Your task to perform on an android device: turn on javascript in the chrome app Image 0: 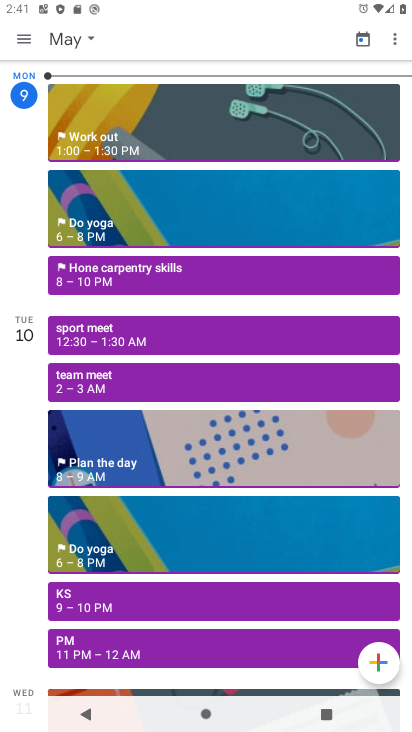
Step 0: press home button
Your task to perform on an android device: turn on javascript in the chrome app Image 1: 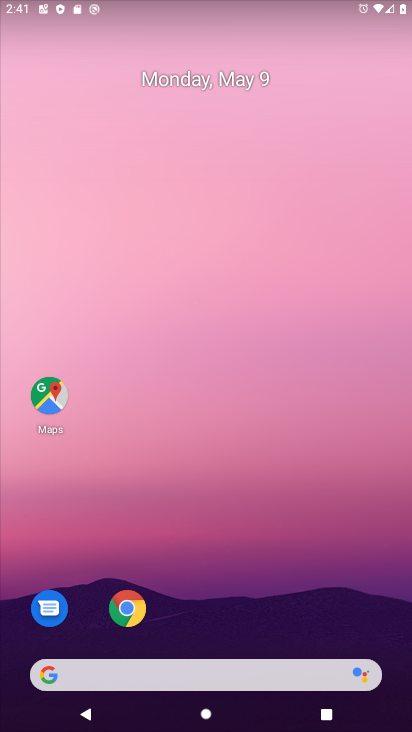
Step 1: click (135, 621)
Your task to perform on an android device: turn on javascript in the chrome app Image 2: 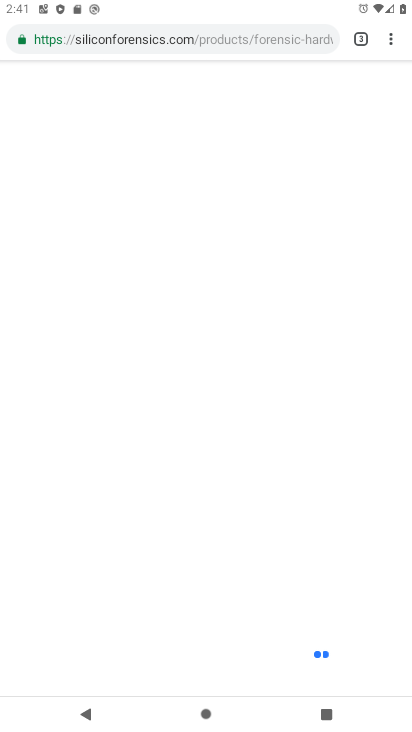
Step 2: click (378, 42)
Your task to perform on an android device: turn on javascript in the chrome app Image 3: 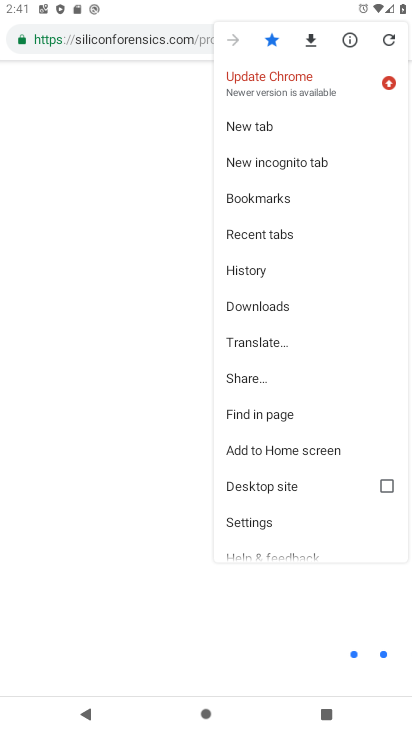
Step 3: click (302, 518)
Your task to perform on an android device: turn on javascript in the chrome app Image 4: 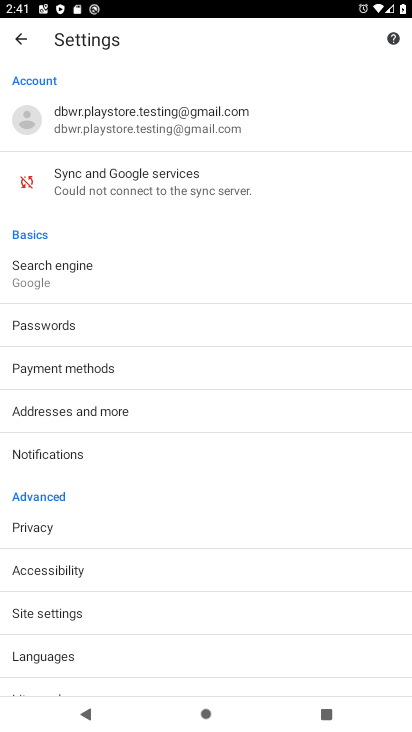
Step 4: drag from (110, 647) to (189, 157)
Your task to perform on an android device: turn on javascript in the chrome app Image 5: 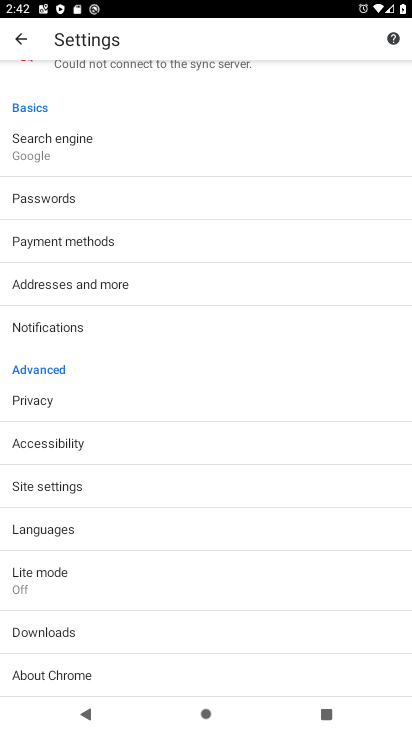
Step 5: drag from (35, 579) to (92, 264)
Your task to perform on an android device: turn on javascript in the chrome app Image 6: 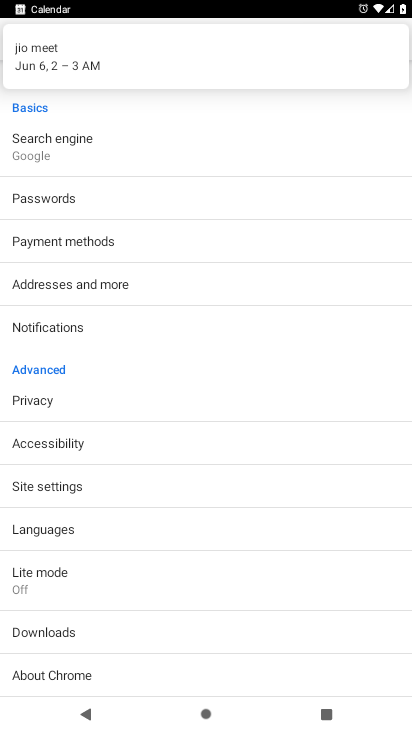
Step 6: click (96, 491)
Your task to perform on an android device: turn on javascript in the chrome app Image 7: 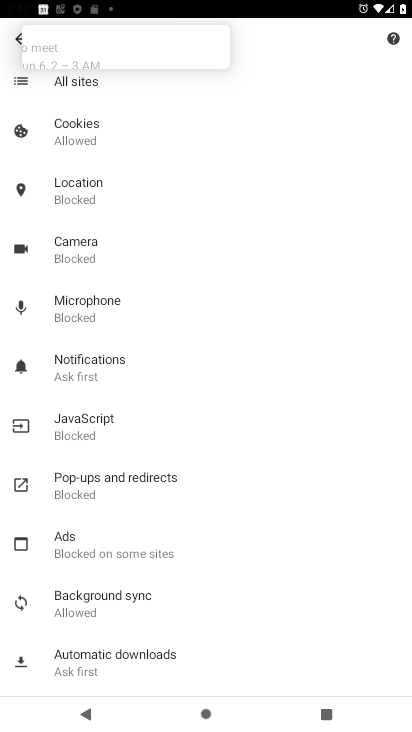
Step 7: click (143, 452)
Your task to perform on an android device: turn on javascript in the chrome app Image 8: 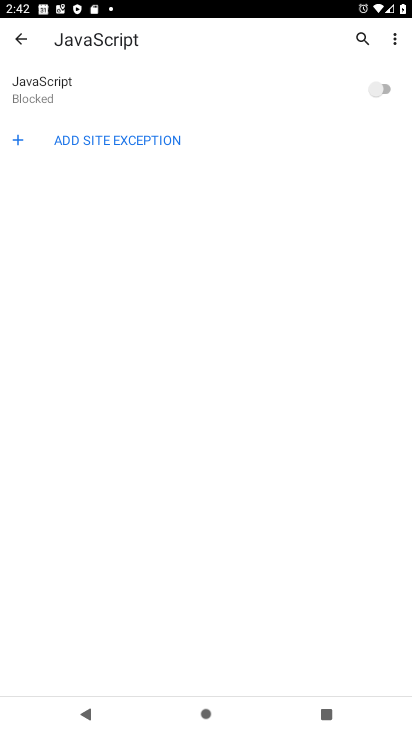
Step 8: click (384, 92)
Your task to perform on an android device: turn on javascript in the chrome app Image 9: 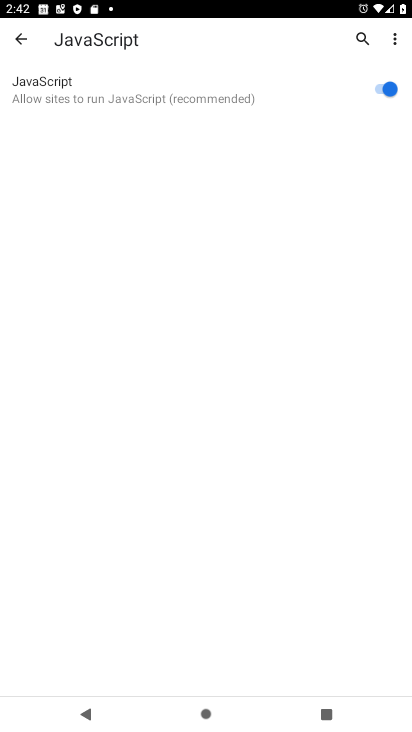
Step 9: task complete